Your task to perform on an android device: Open maps Image 0: 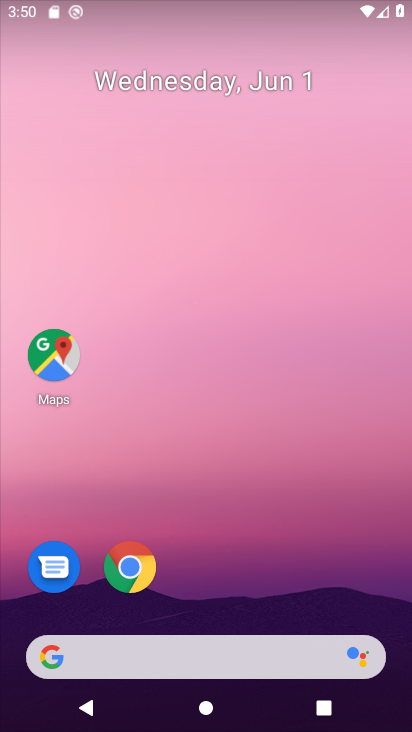
Step 0: drag from (256, 584) to (265, 0)
Your task to perform on an android device: Open maps Image 1: 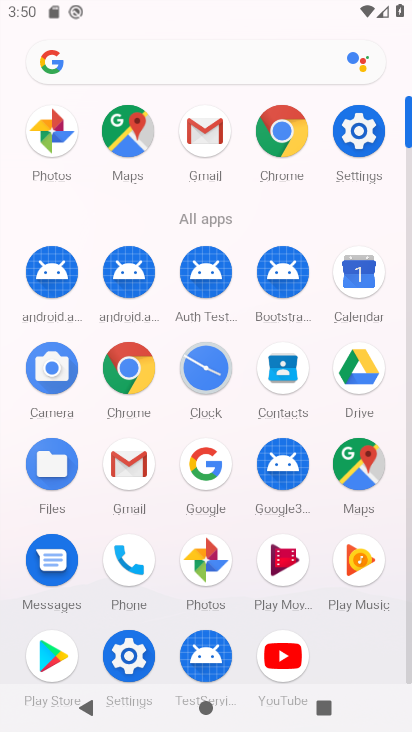
Step 1: click (125, 145)
Your task to perform on an android device: Open maps Image 2: 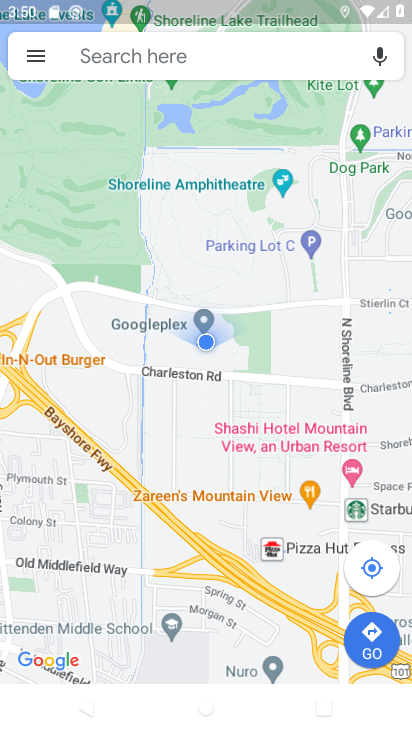
Step 2: task complete